Your task to perform on an android device: Go to Reddit.com Image 0: 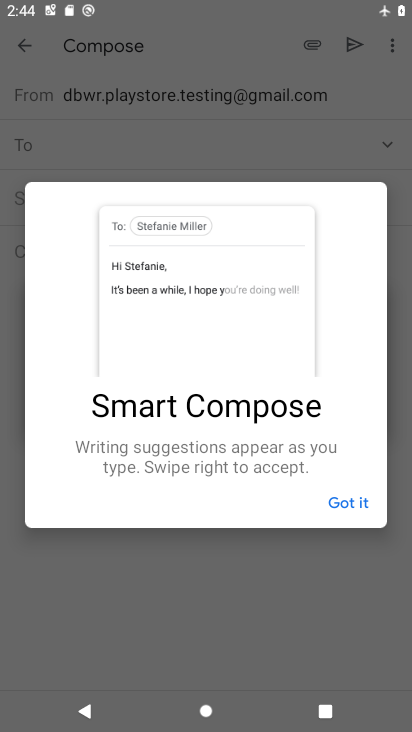
Step 0: click (318, 607)
Your task to perform on an android device: Go to Reddit.com Image 1: 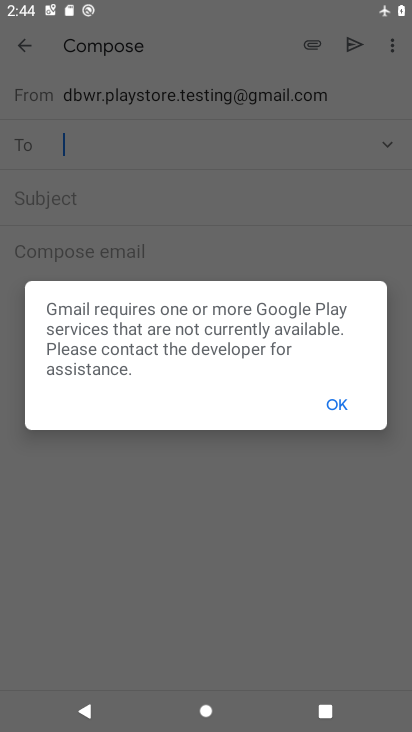
Step 1: press back button
Your task to perform on an android device: Go to Reddit.com Image 2: 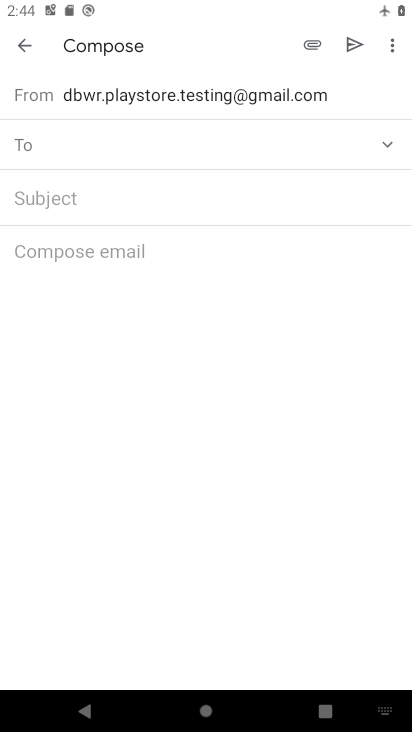
Step 2: press home button
Your task to perform on an android device: Go to Reddit.com Image 3: 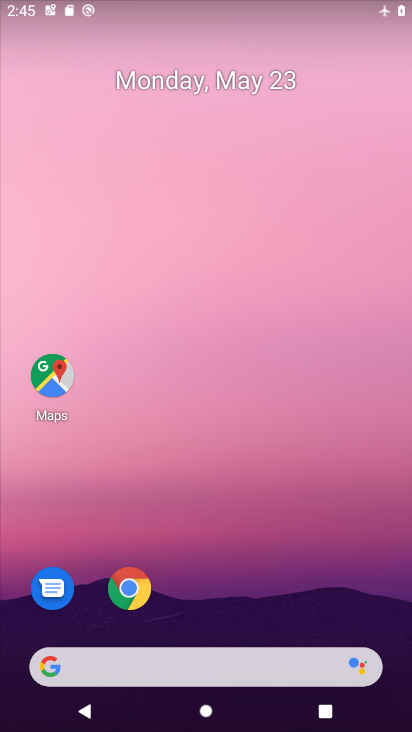
Step 3: click (158, 659)
Your task to perform on an android device: Go to Reddit.com Image 4: 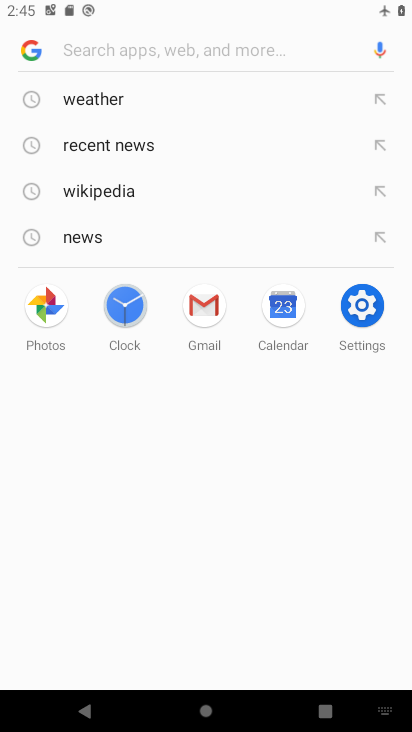
Step 4: click (109, 48)
Your task to perform on an android device: Go to Reddit.com Image 5: 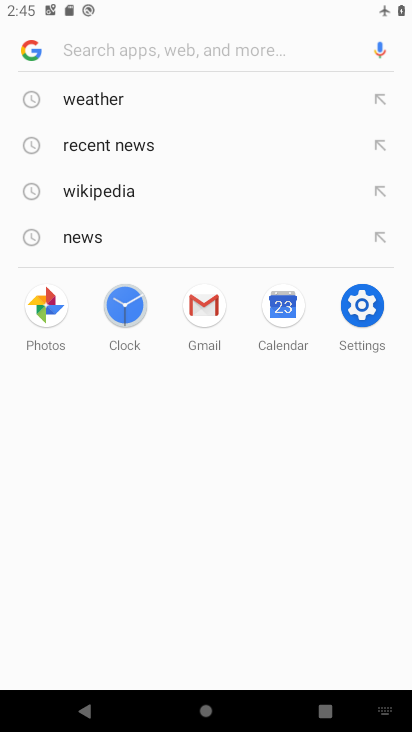
Step 5: type " Reddit.com"
Your task to perform on an android device: Go to Reddit.com Image 6: 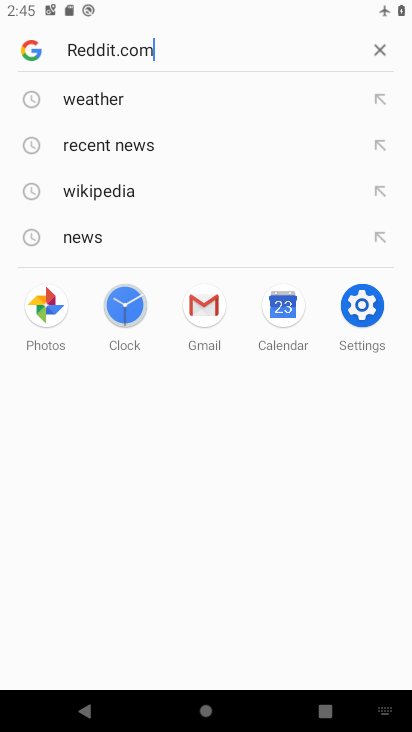
Step 6: type ""
Your task to perform on an android device: Go to Reddit.com Image 7: 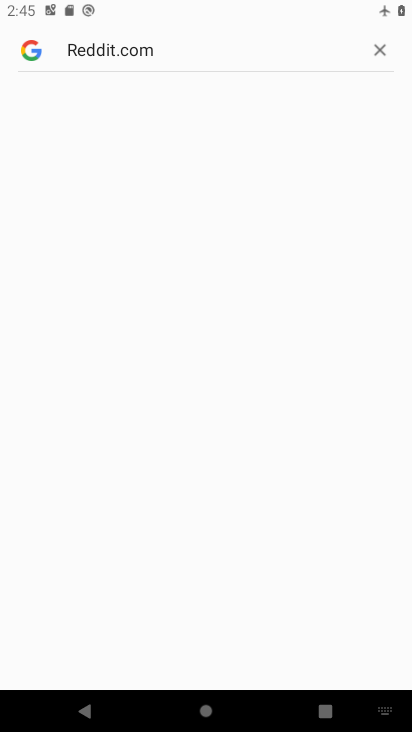
Step 7: click (172, 227)
Your task to perform on an android device: Go to Reddit.com Image 8: 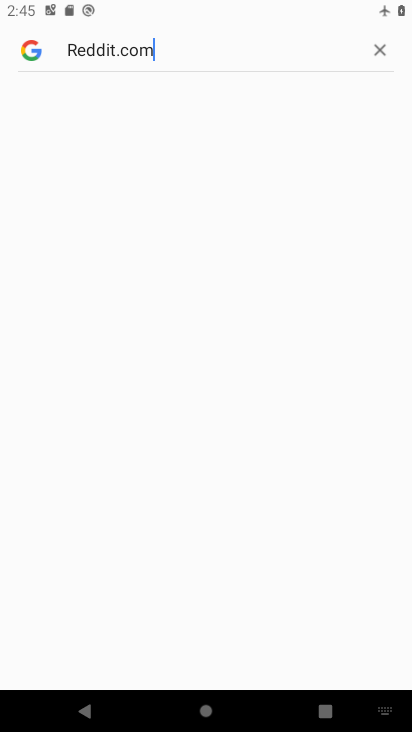
Step 8: task complete